Your task to perform on an android device: find which apps use the phone's location Image 0: 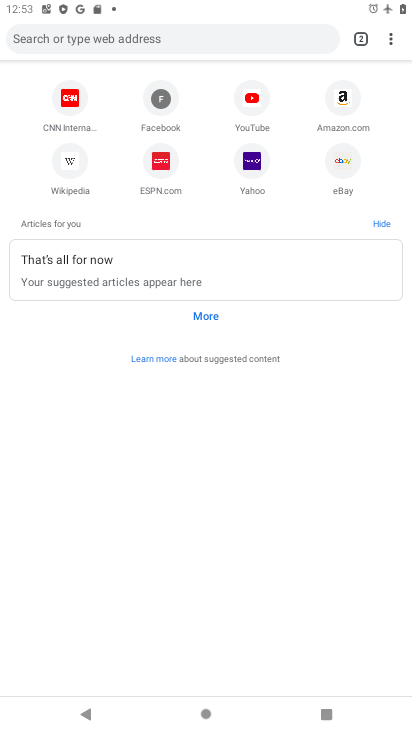
Step 0: press home button
Your task to perform on an android device: find which apps use the phone's location Image 1: 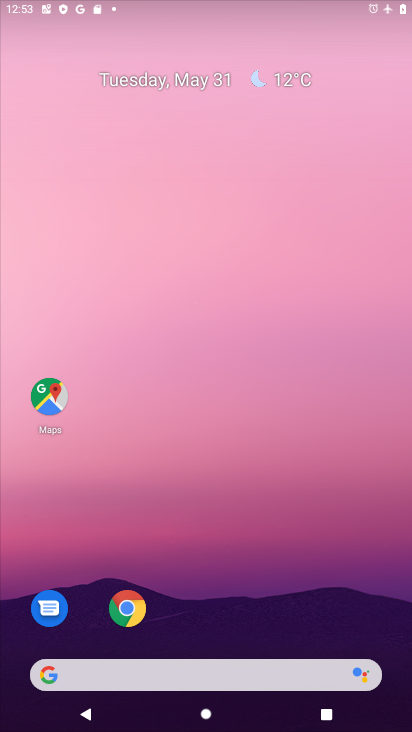
Step 1: drag from (250, 595) to (300, 19)
Your task to perform on an android device: find which apps use the phone's location Image 2: 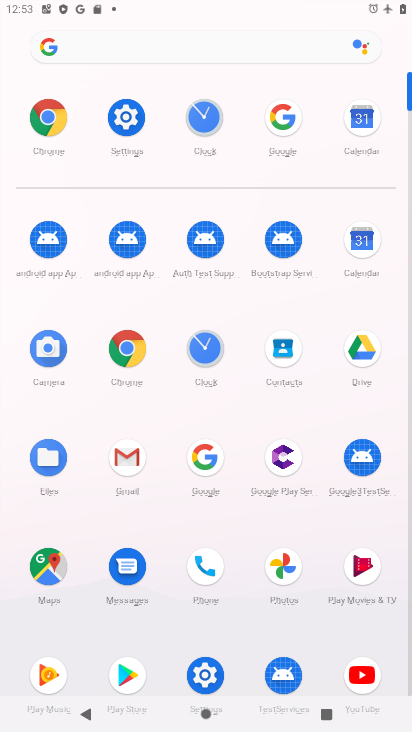
Step 2: click (123, 108)
Your task to perform on an android device: find which apps use the phone's location Image 3: 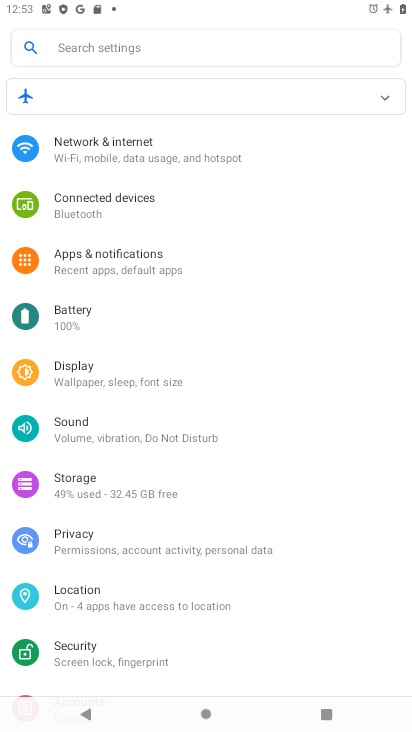
Step 3: click (55, 601)
Your task to perform on an android device: find which apps use the phone's location Image 4: 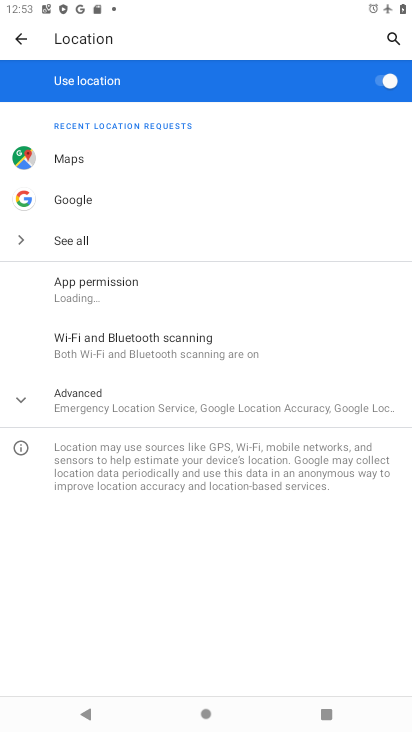
Step 4: click (94, 287)
Your task to perform on an android device: find which apps use the phone's location Image 5: 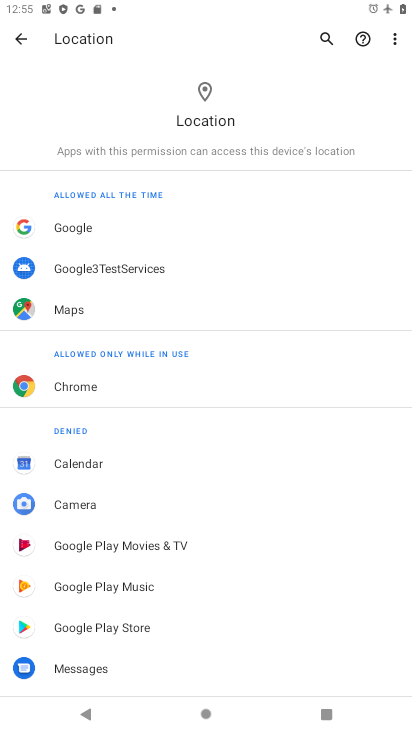
Step 5: task complete